Your task to perform on an android device: Go to eBay Image 0: 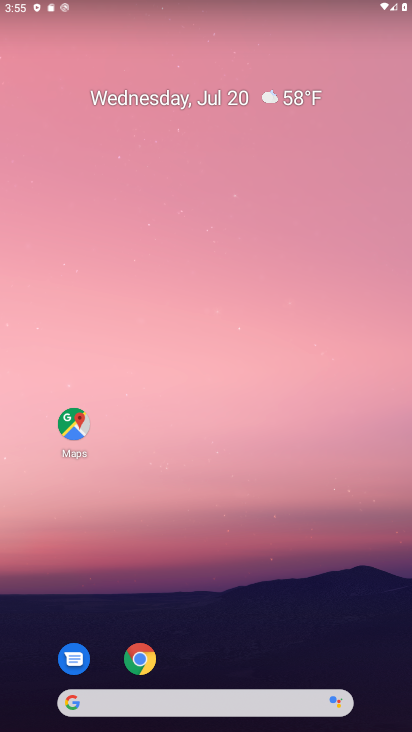
Step 0: drag from (252, 608) to (93, 148)
Your task to perform on an android device: Go to eBay Image 1: 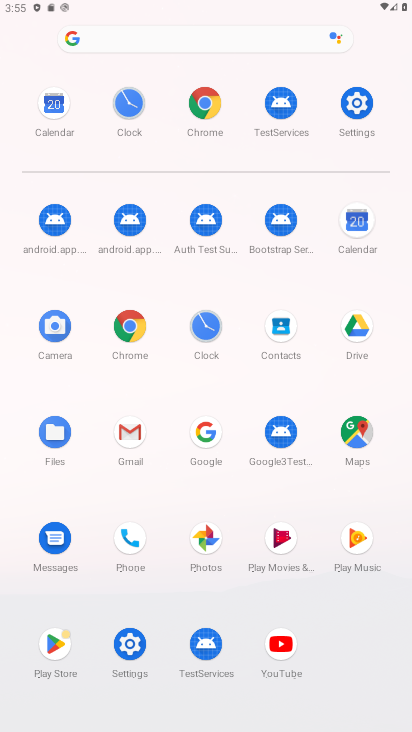
Step 1: drag from (260, 527) to (202, 179)
Your task to perform on an android device: Go to eBay Image 2: 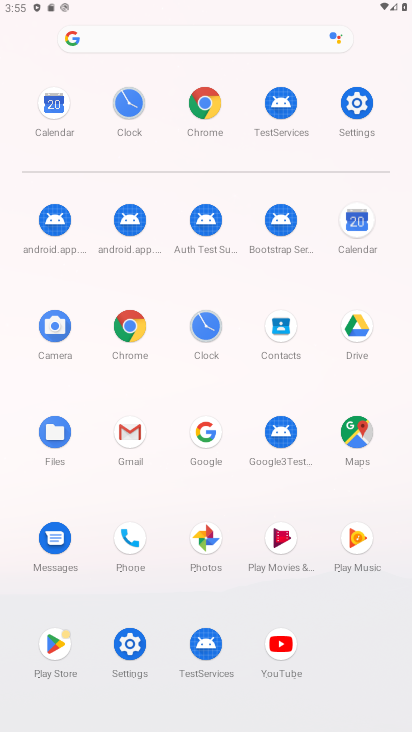
Step 2: click (130, 325)
Your task to perform on an android device: Go to eBay Image 3: 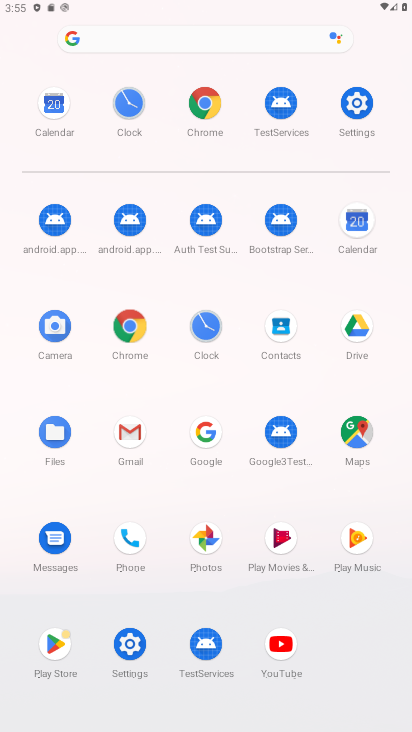
Step 3: click (132, 327)
Your task to perform on an android device: Go to eBay Image 4: 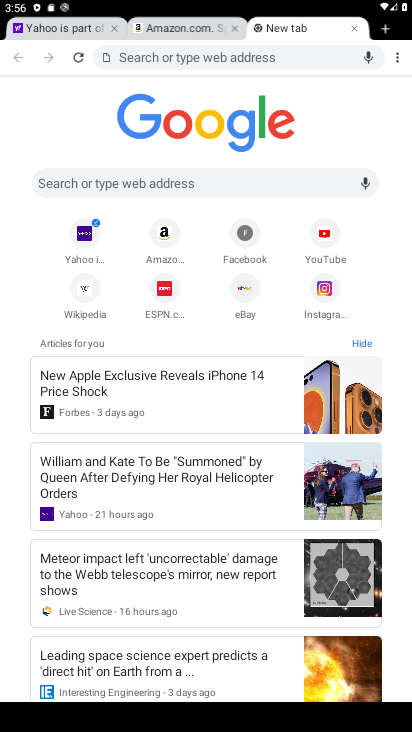
Step 4: click (247, 291)
Your task to perform on an android device: Go to eBay Image 5: 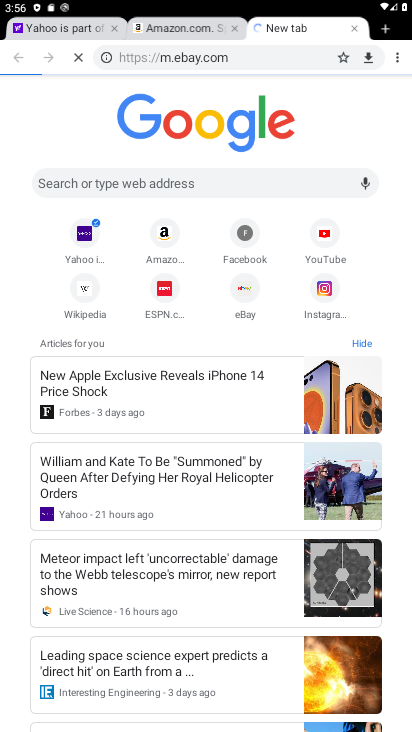
Step 5: click (251, 295)
Your task to perform on an android device: Go to eBay Image 6: 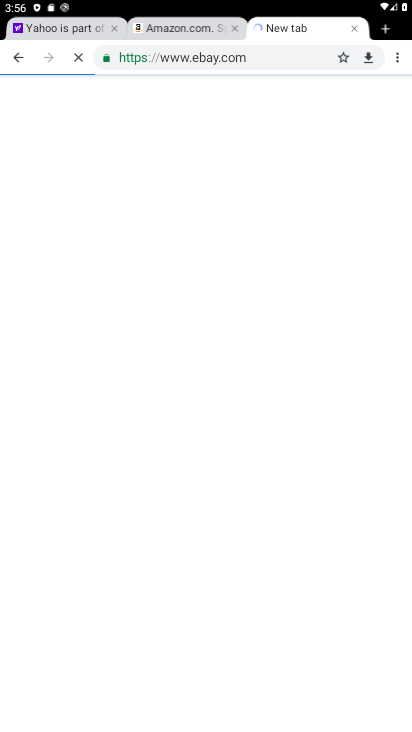
Step 6: click (252, 294)
Your task to perform on an android device: Go to eBay Image 7: 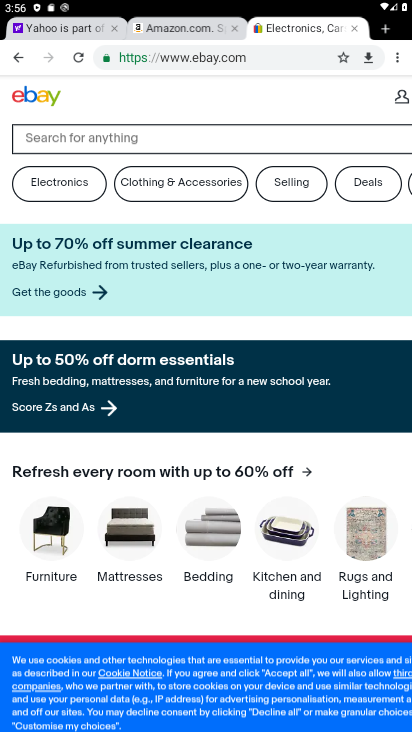
Step 7: task complete